Your task to perform on an android device: Open accessibility settings Image 0: 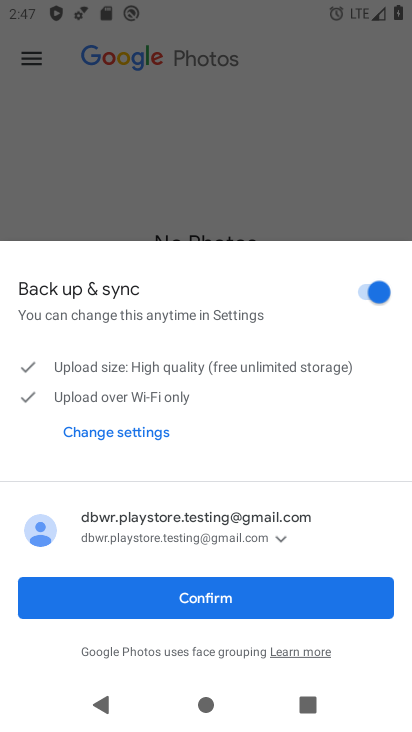
Step 0: press home button
Your task to perform on an android device: Open accessibility settings Image 1: 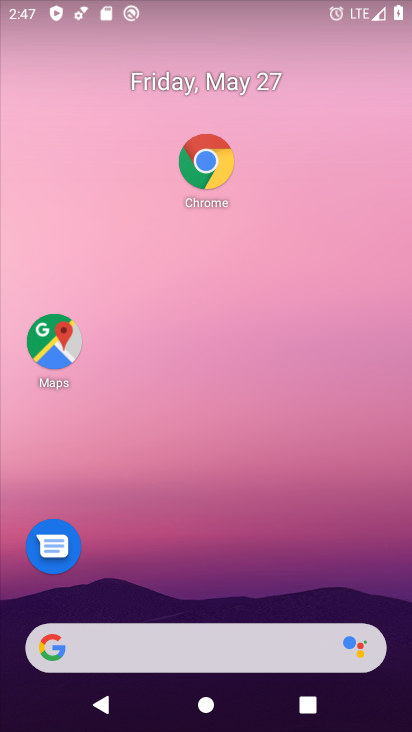
Step 1: drag from (164, 587) to (185, 182)
Your task to perform on an android device: Open accessibility settings Image 2: 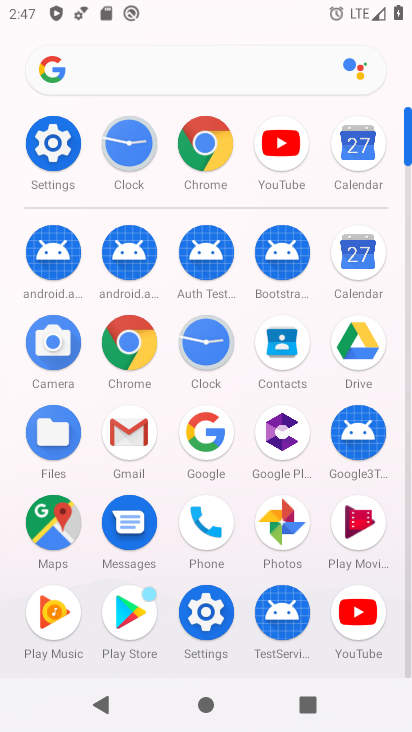
Step 2: click (55, 154)
Your task to perform on an android device: Open accessibility settings Image 3: 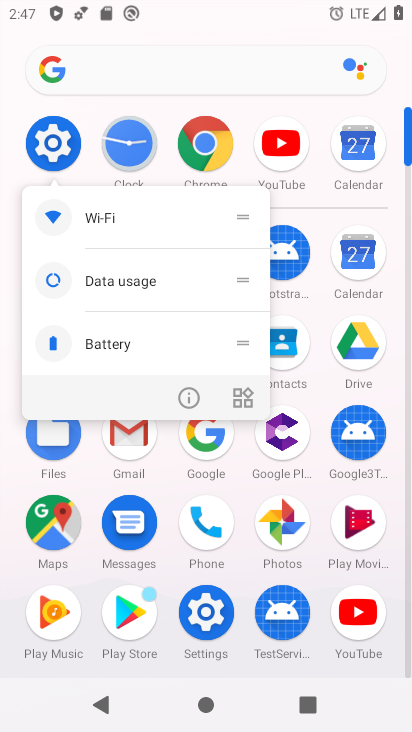
Step 3: click (49, 139)
Your task to perform on an android device: Open accessibility settings Image 4: 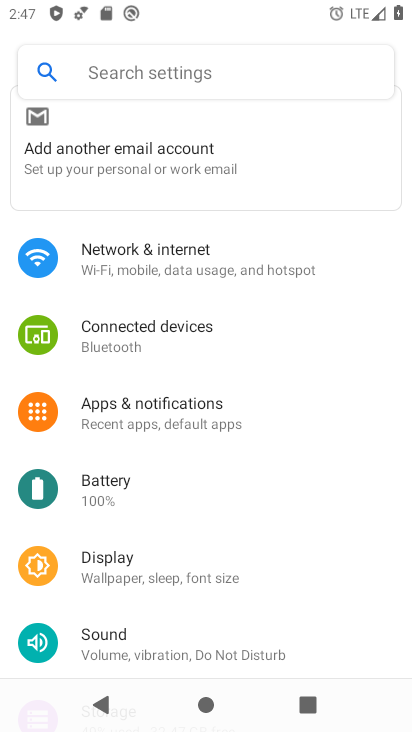
Step 4: drag from (165, 513) to (267, 125)
Your task to perform on an android device: Open accessibility settings Image 5: 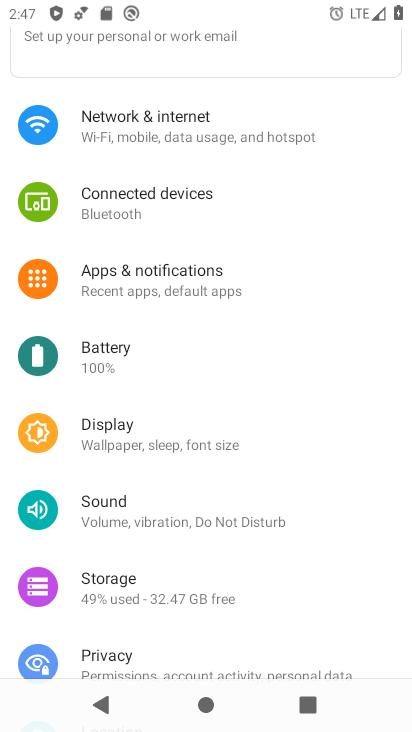
Step 5: drag from (164, 570) to (249, 157)
Your task to perform on an android device: Open accessibility settings Image 6: 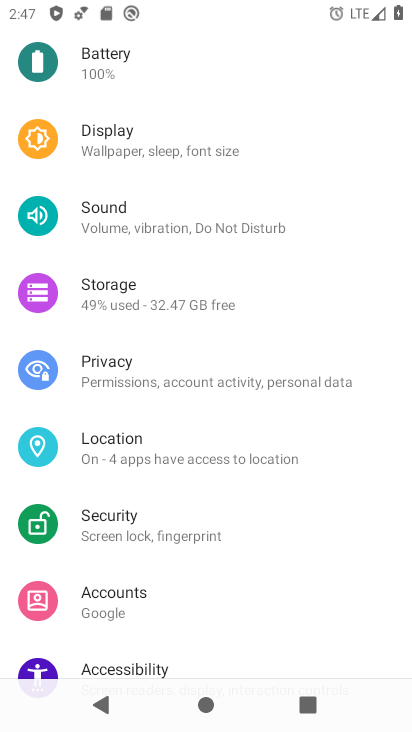
Step 6: click (132, 666)
Your task to perform on an android device: Open accessibility settings Image 7: 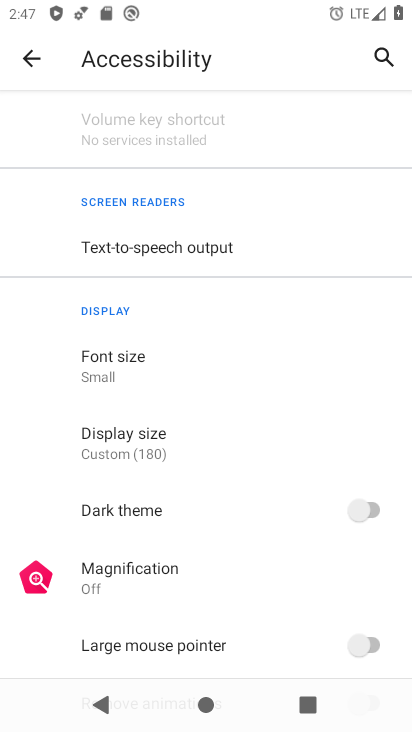
Step 7: task complete